Your task to perform on an android device: change your default location settings in chrome Image 0: 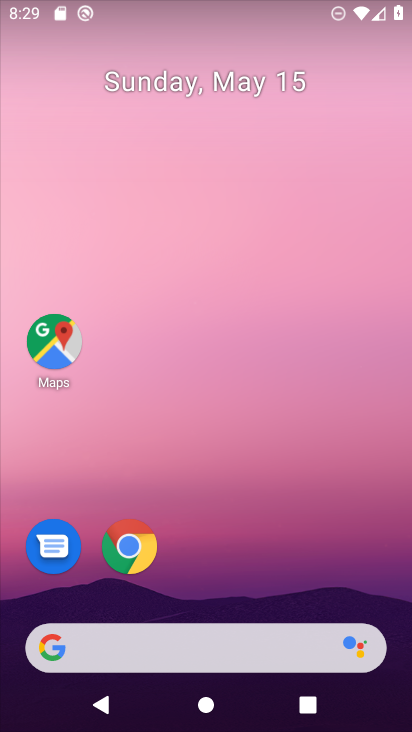
Step 0: click (138, 545)
Your task to perform on an android device: change your default location settings in chrome Image 1: 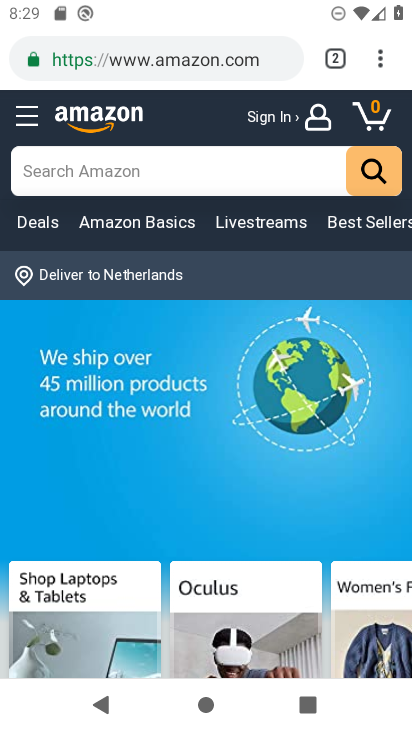
Step 1: click (380, 49)
Your task to perform on an android device: change your default location settings in chrome Image 2: 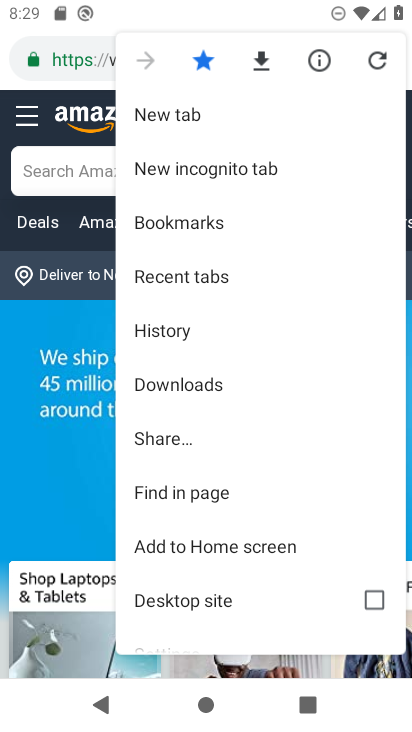
Step 2: drag from (265, 510) to (264, 231)
Your task to perform on an android device: change your default location settings in chrome Image 3: 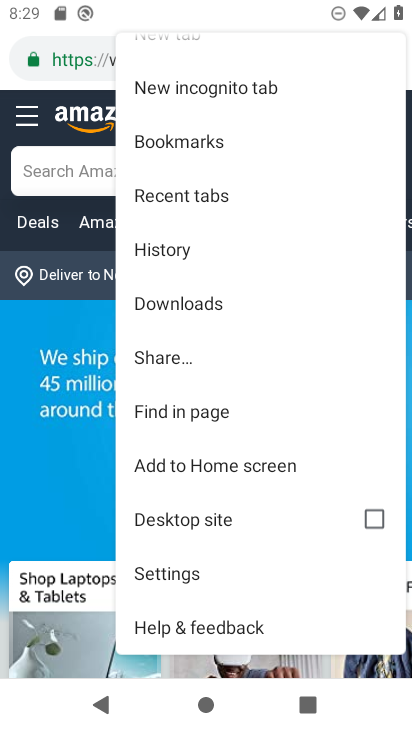
Step 3: click (229, 564)
Your task to perform on an android device: change your default location settings in chrome Image 4: 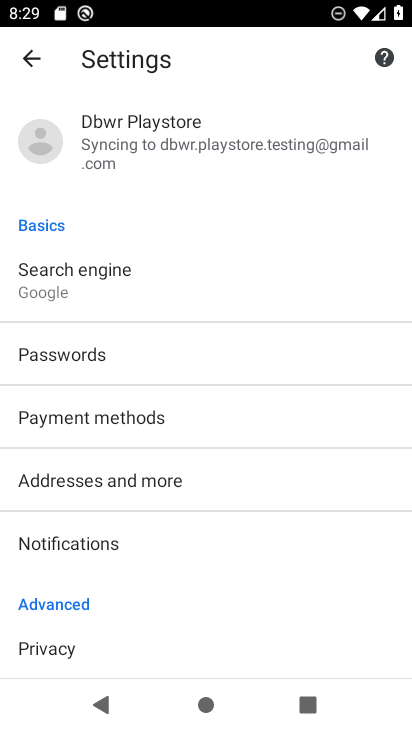
Step 4: drag from (229, 561) to (236, 288)
Your task to perform on an android device: change your default location settings in chrome Image 5: 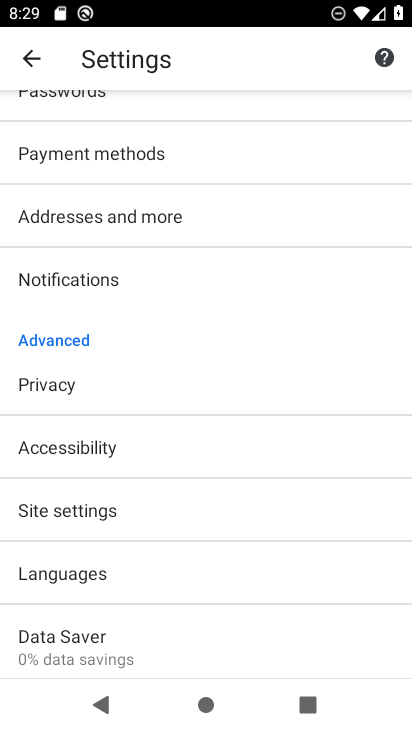
Step 5: click (214, 504)
Your task to perform on an android device: change your default location settings in chrome Image 6: 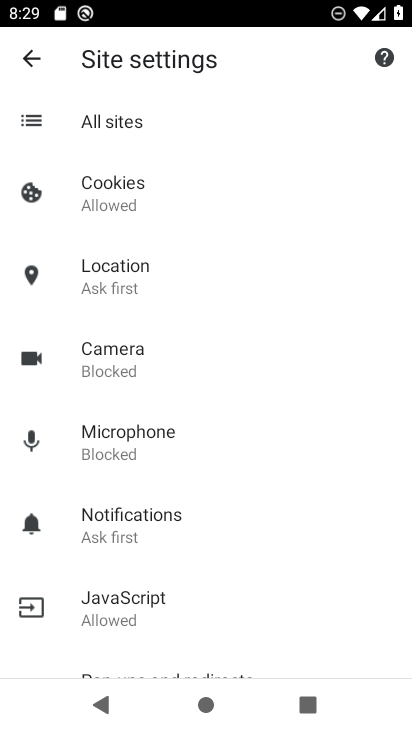
Step 6: click (185, 277)
Your task to perform on an android device: change your default location settings in chrome Image 7: 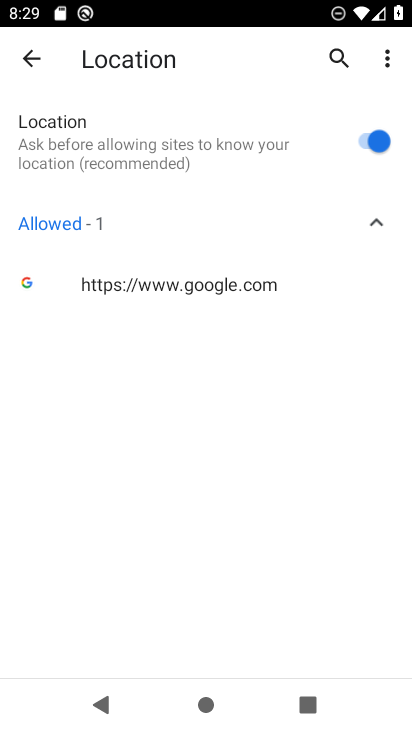
Step 7: click (365, 136)
Your task to perform on an android device: change your default location settings in chrome Image 8: 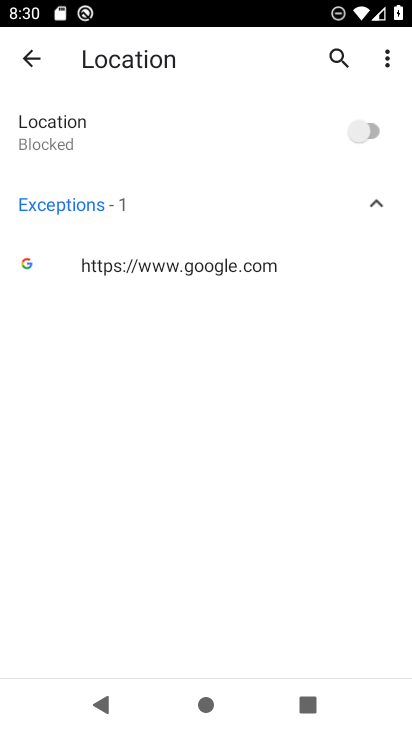
Step 8: task complete